Your task to perform on an android device: Empty the shopping cart on ebay.com. Add "macbook pro 13 inch" to the cart on ebay.com Image 0: 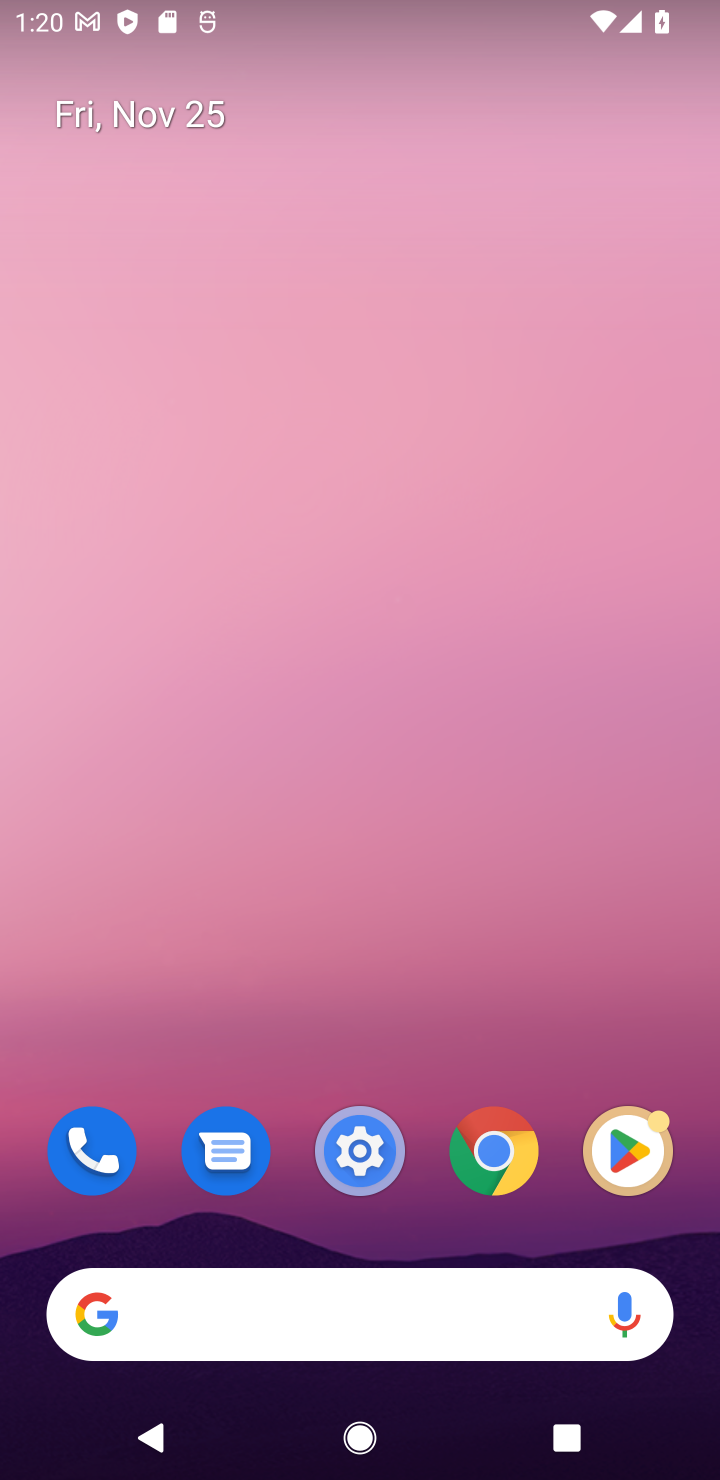
Step 0: click (366, 1336)
Your task to perform on an android device: Empty the shopping cart on ebay.com. Add "macbook pro 13 inch" to the cart on ebay.com Image 1: 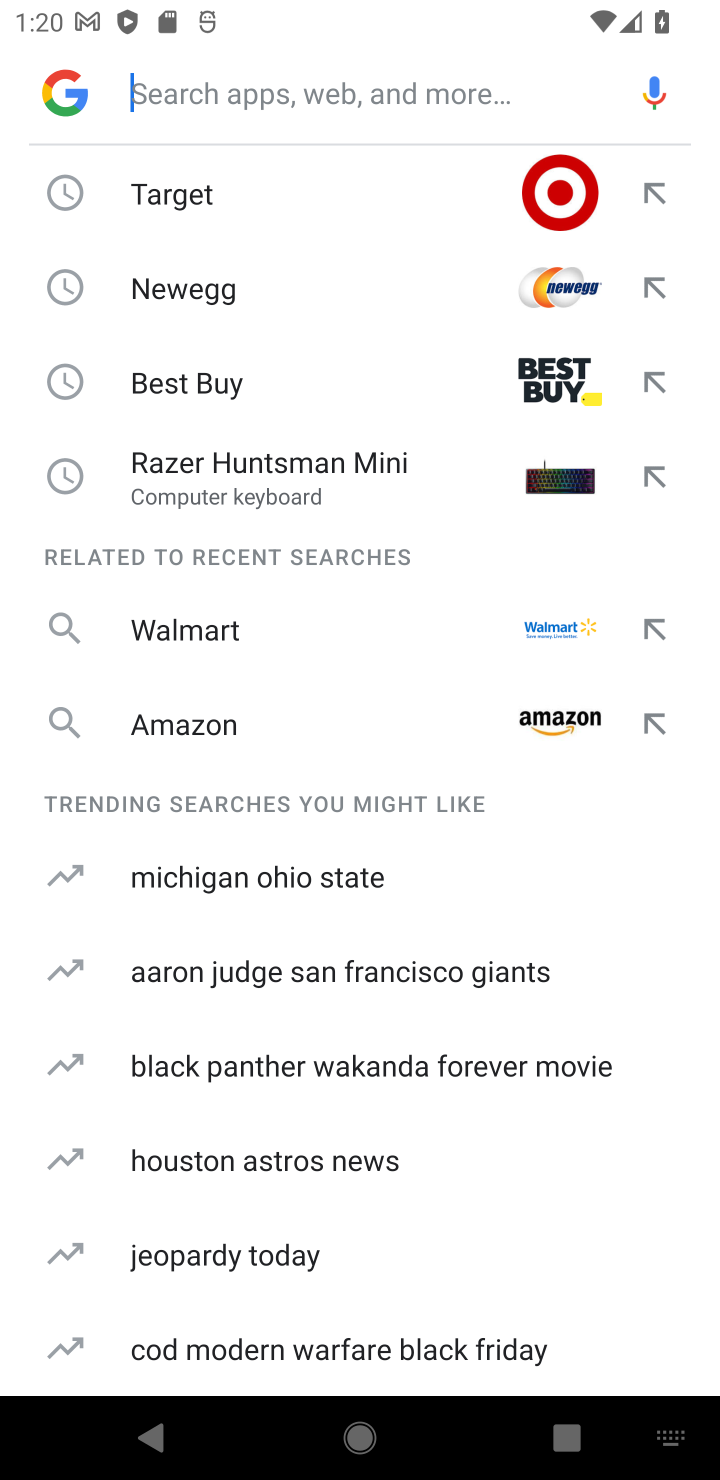
Step 1: type "ebay"
Your task to perform on an android device: Empty the shopping cart on ebay.com. Add "macbook pro 13 inch" to the cart on ebay.com Image 2: 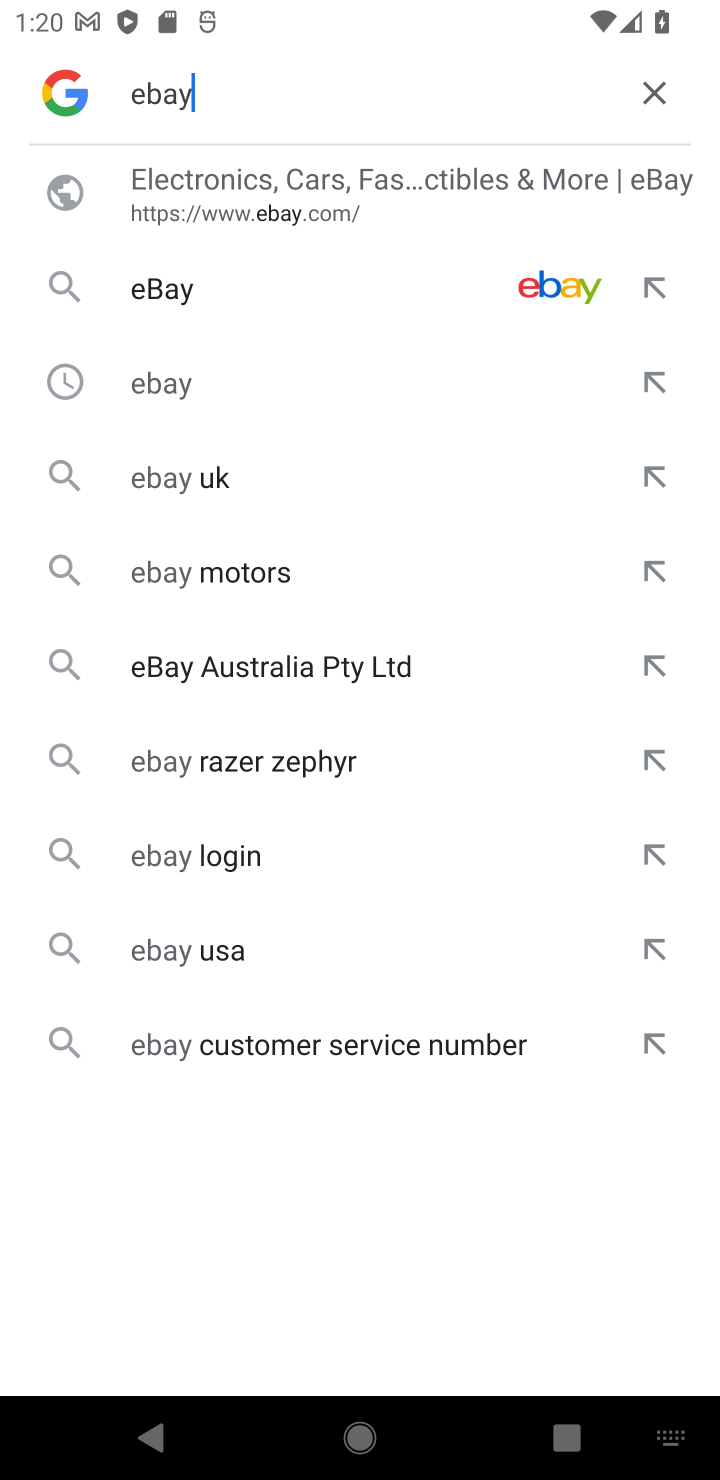
Step 2: click (144, 182)
Your task to perform on an android device: Empty the shopping cart on ebay.com. Add "macbook pro 13 inch" to the cart on ebay.com Image 3: 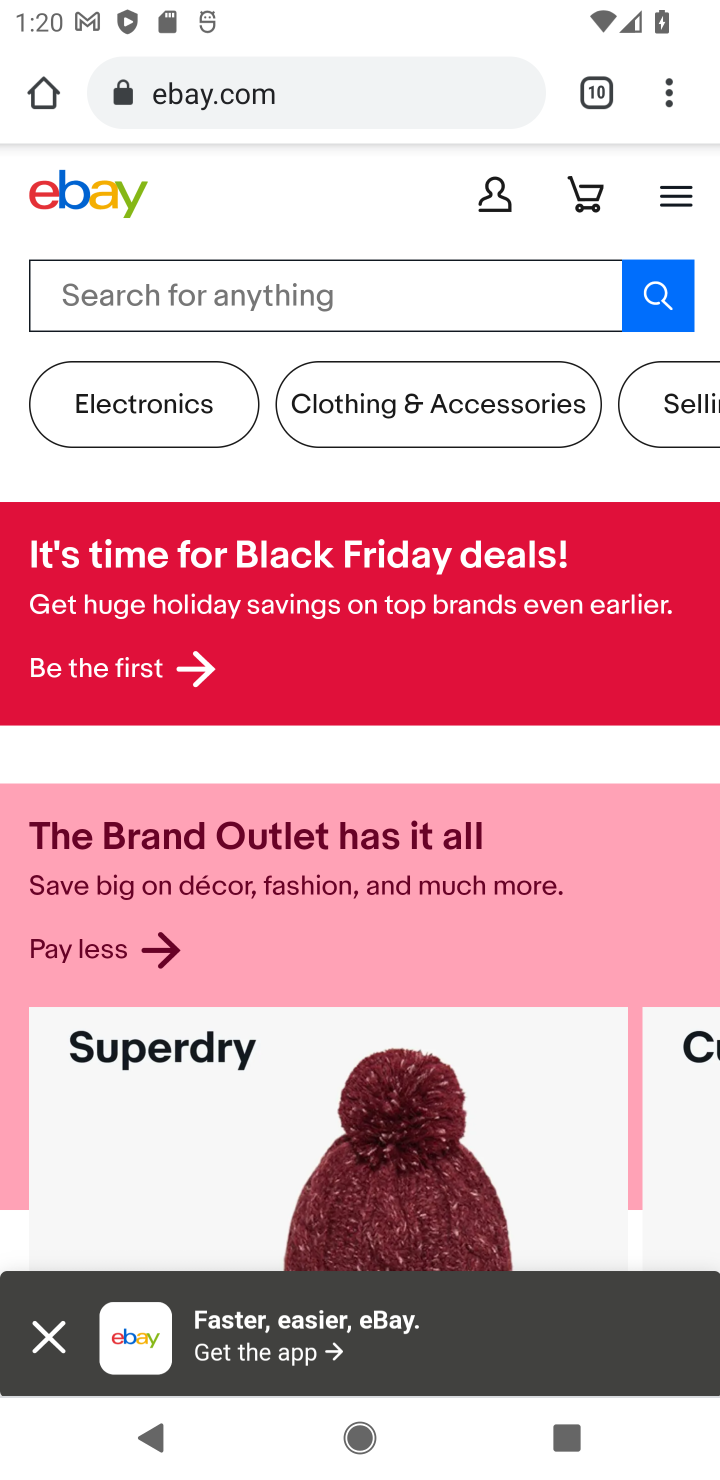
Step 3: click (233, 312)
Your task to perform on an android device: Empty the shopping cart on ebay.com. Add "macbook pro 13 inch" to the cart on ebay.com Image 4: 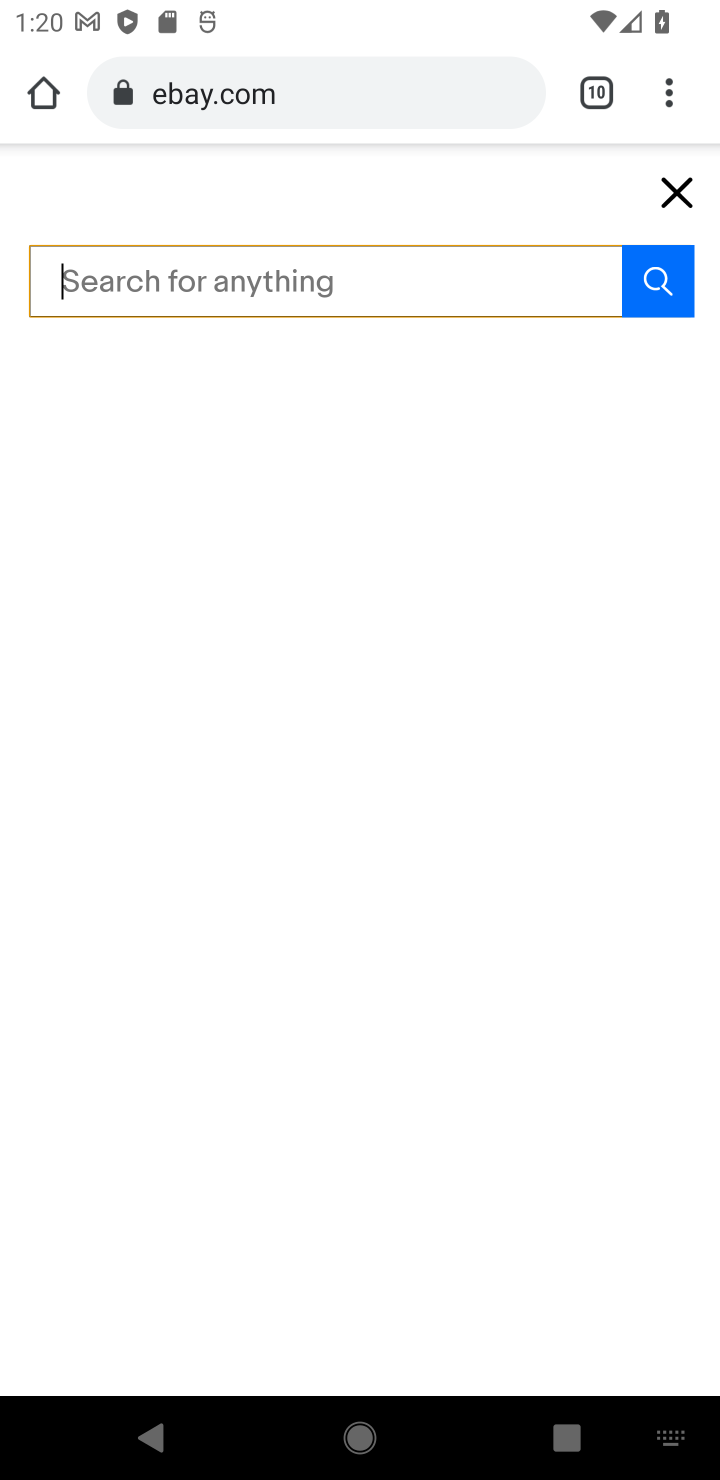
Step 4: type "macbook pro 13"
Your task to perform on an android device: Empty the shopping cart on ebay.com. Add "macbook pro 13 inch" to the cart on ebay.com Image 5: 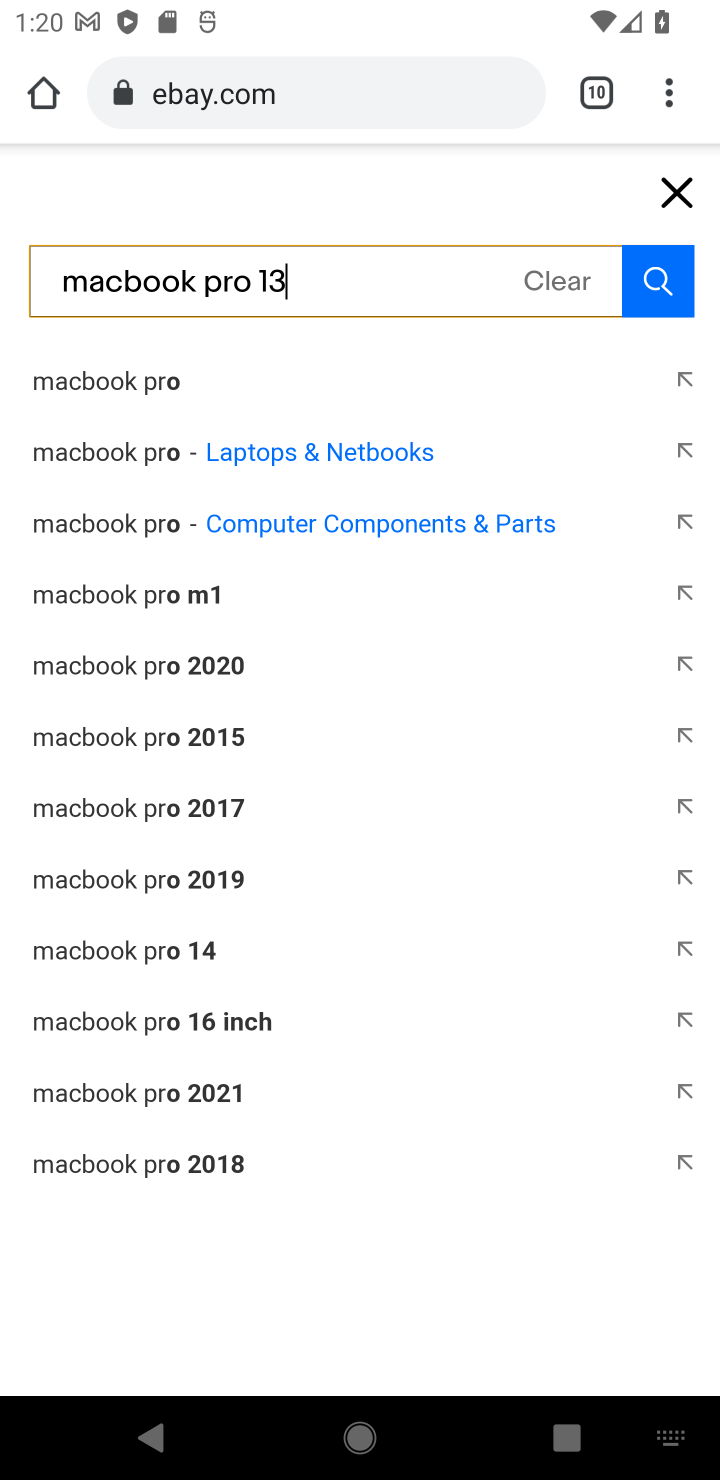
Step 5: click (640, 277)
Your task to perform on an android device: Empty the shopping cart on ebay.com. Add "macbook pro 13 inch" to the cart on ebay.com Image 6: 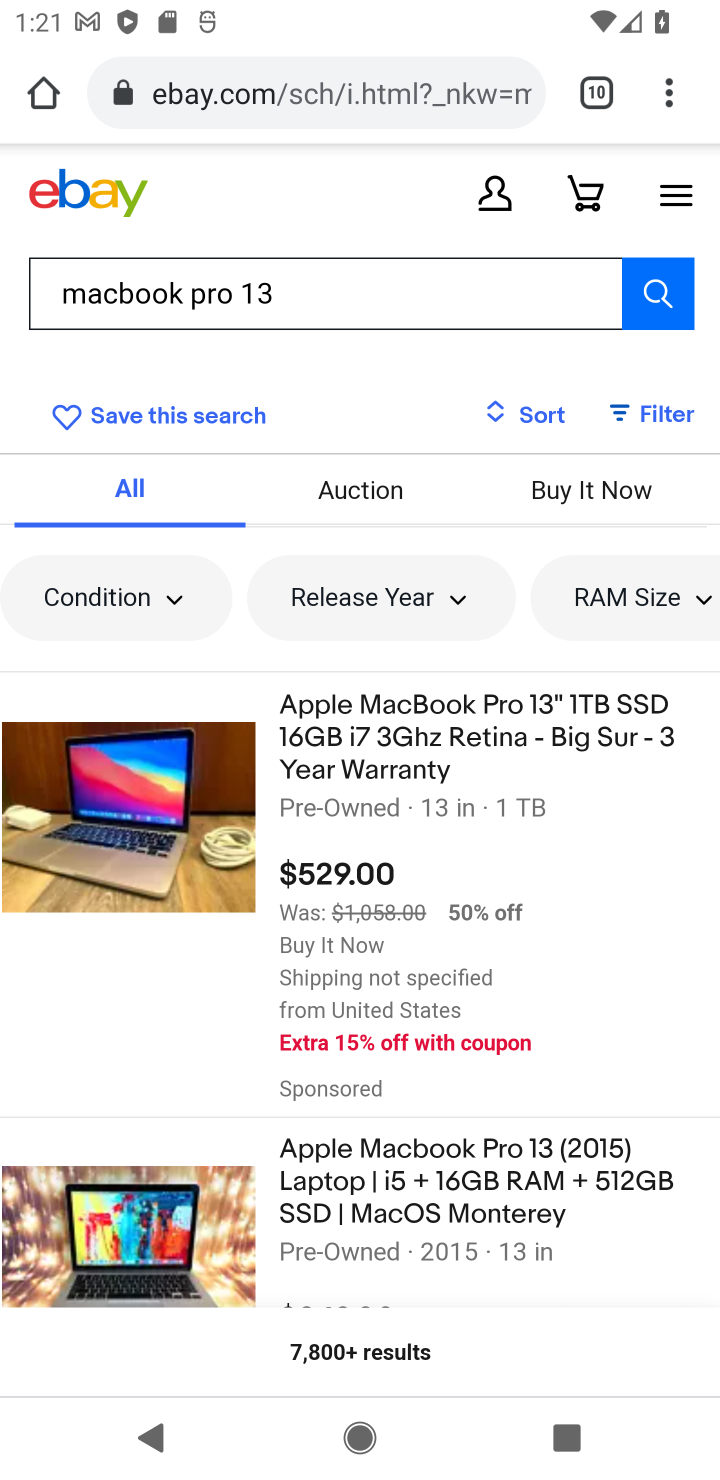
Step 6: click (294, 718)
Your task to perform on an android device: Empty the shopping cart on ebay.com. Add "macbook pro 13 inch" to the cart on ebay.com Image 7: 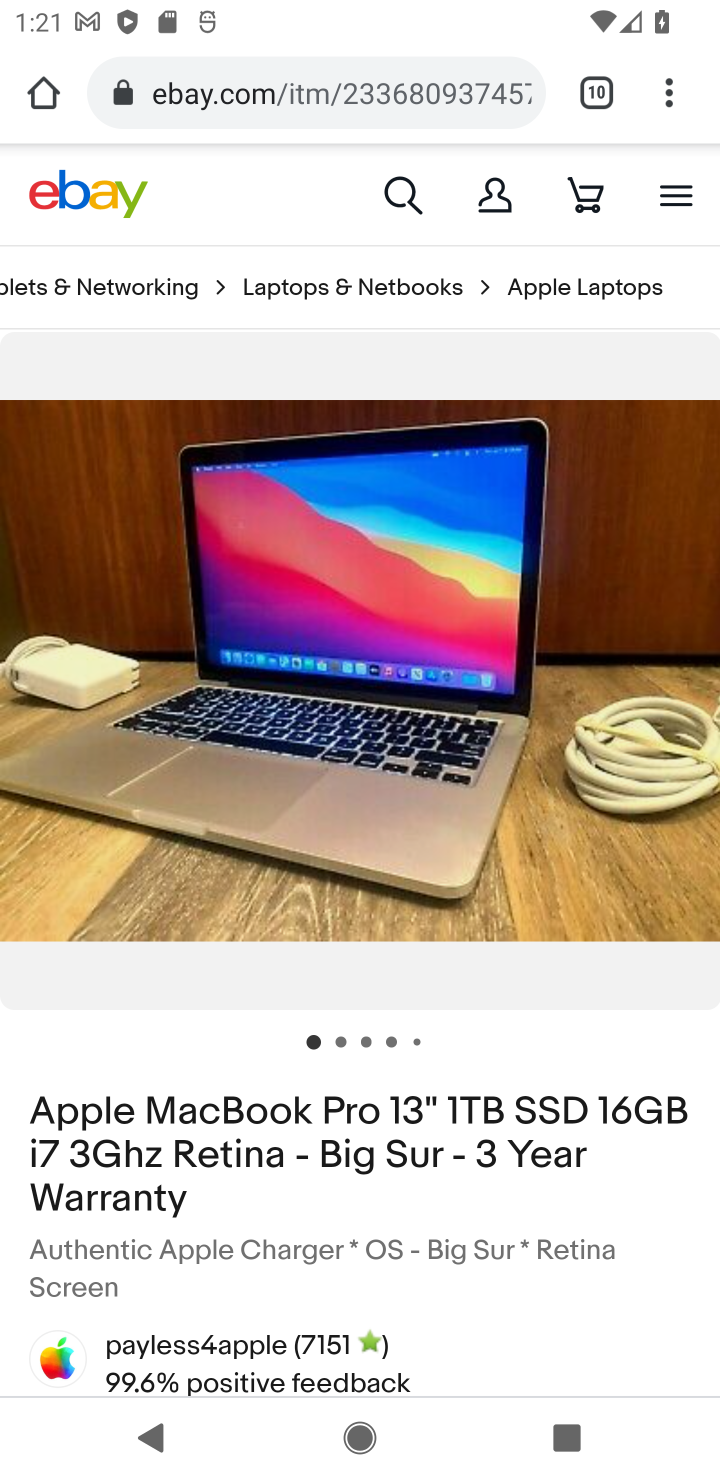
Step 7: task complete